Your task to perform on an android device: turn on airplane mode Image 0: 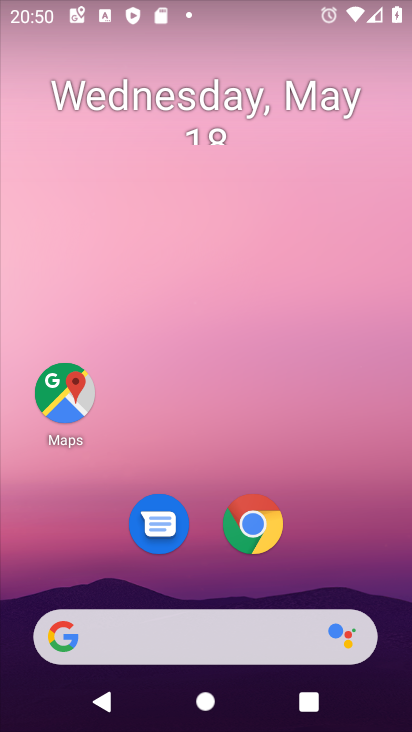
Step 0: drag from (333, 498) to (302, 8)
Your task to perform on an android device: turn on airplane mode Image 1: 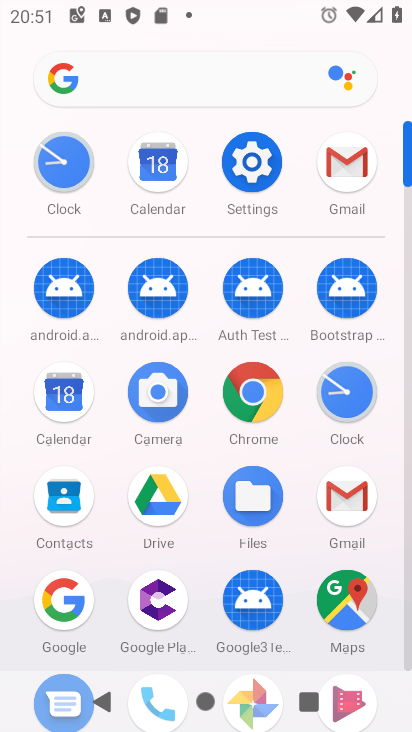
Step 1: click (248, 158)
Your task to perform on an android device: turn on airplane mode Image 2: 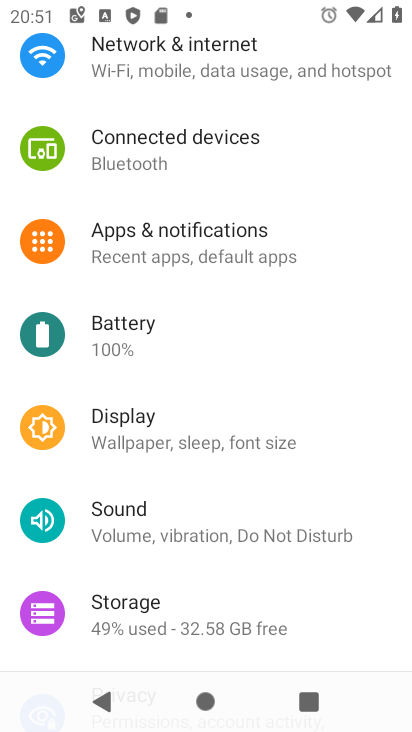
Step 2: drag from (231, 228) to (214, 420)
Your task to perform on an android device: turn on airplane mode Image 3: 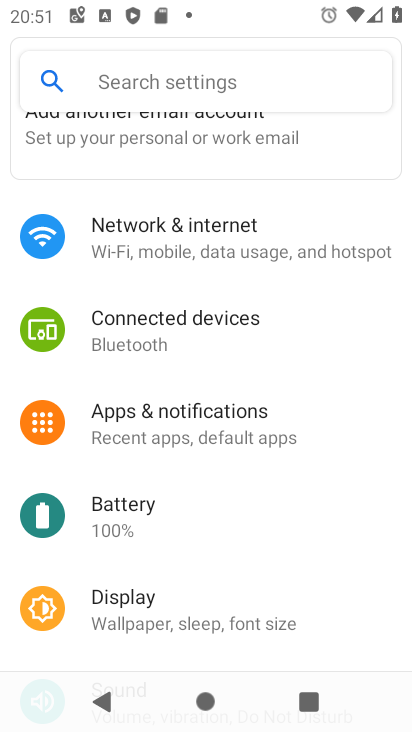
Step 3: click (265, 234)
Your task to perform on an android device: turn on airplane mode Image 4: 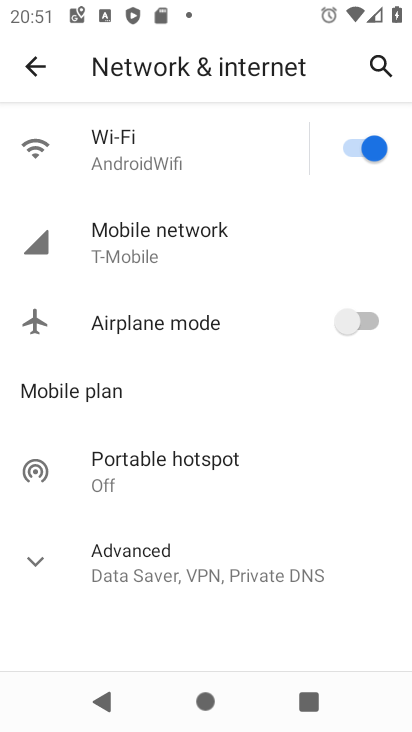
Step 4: click (346, 315)
Your task to perform on an android device: turn on airplane mode Image 5: 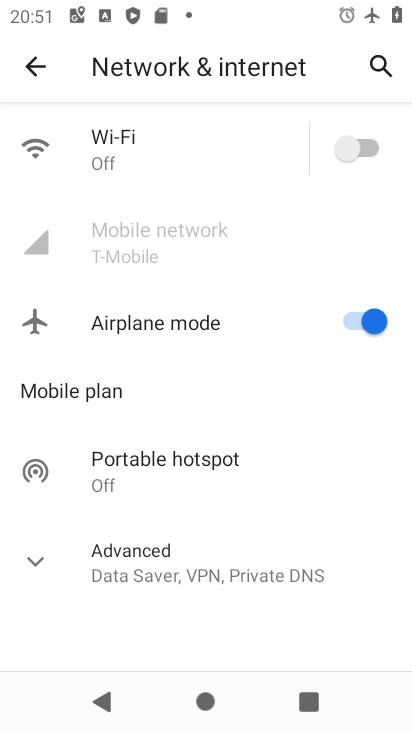
Step 5: task complete